Your task to perform on an android device: turn on the 12-hour format for clock Image 0: 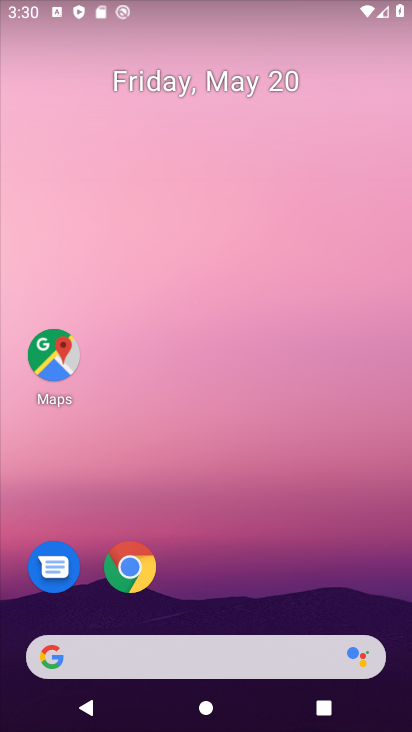
Step 0: drag from (321, 565) to (269, 116)
Your task to perform on an android device: turn on the 12-hour format for clock Image 1: 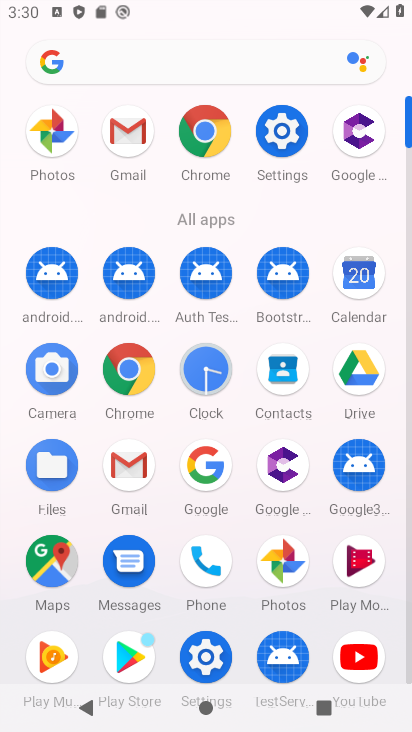
Step 1: click (208, 372)
Your task to perform on an android device: turn on the 12-hour format for clock Image 2: 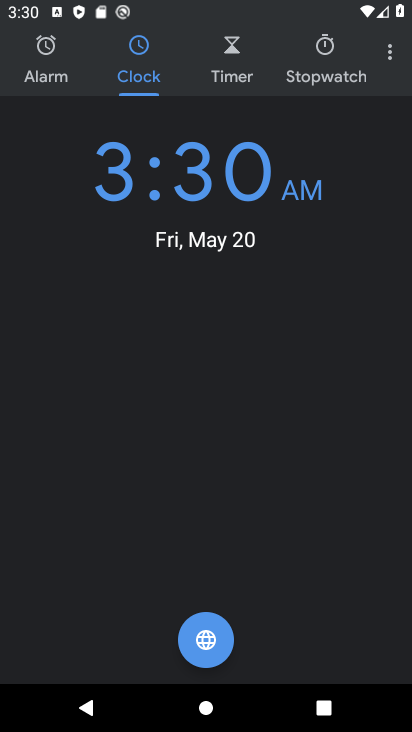
Step 2: click (389, 62)
Your task to perform on an android device: turn on the 12-hour format for clock Image 3: 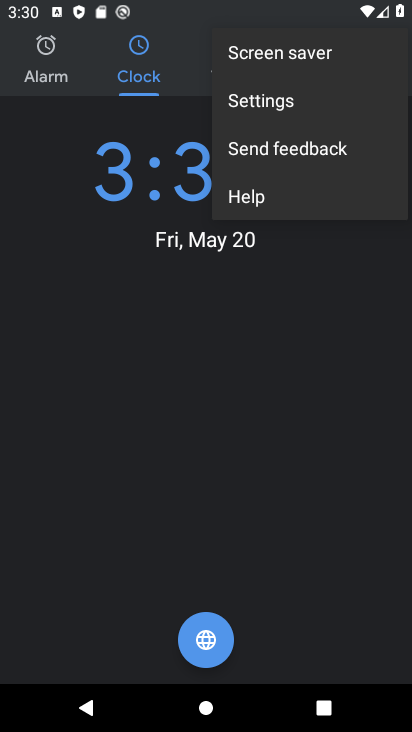
Step 3: click (242, 116)
Your task to perform on an android device: turn on the 12-hour format for clock Image 4: 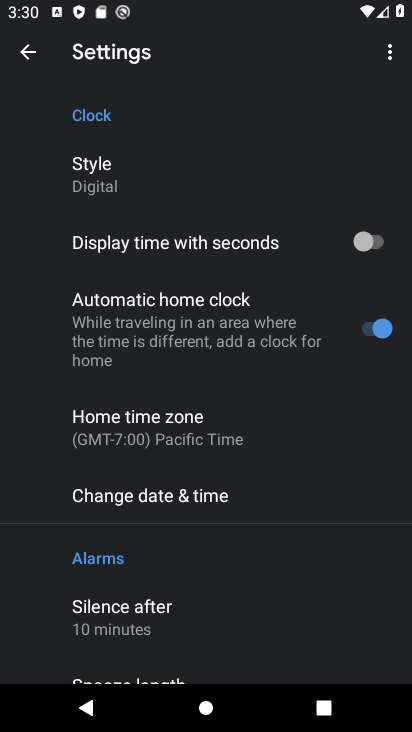
Step 4: click (149, 494)
Your task to perform on an android device: turn on the 12-hour format for clock Image 5: 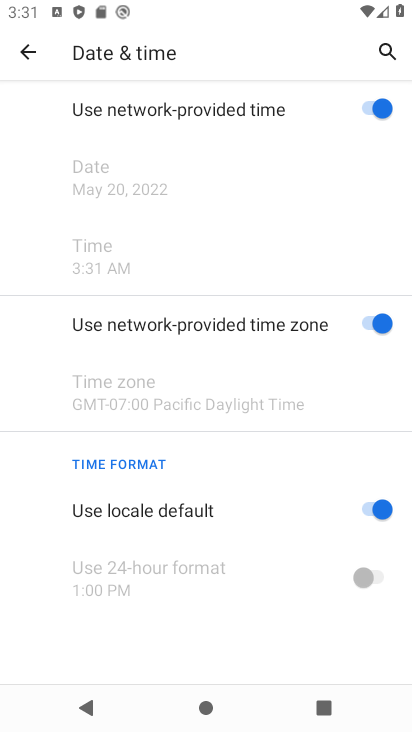
Step 5: task complete